Your task to perform on an android device: star an email in the gmail app Image 0: 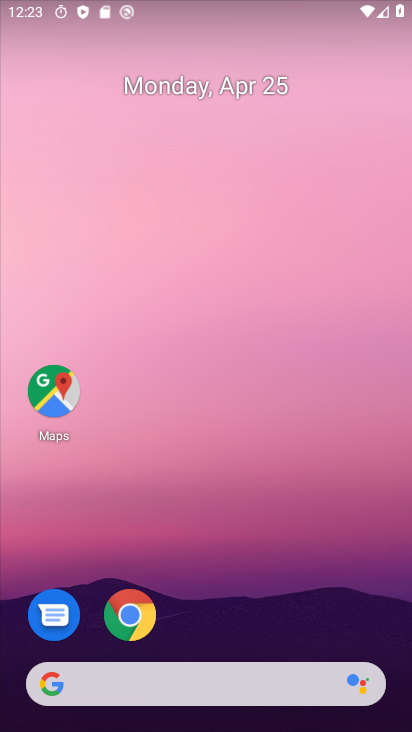
Step 0: drag from (199, 642) to (242, 20)
Your task to perform on an android device: star an email in the gmail app Image 1: 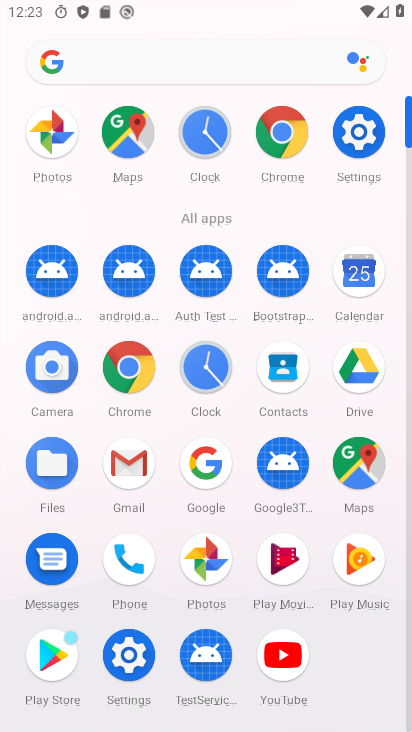
Step 1: click (132, 470)
Your task to perform on an android device: star an email in the gmail app Image 2: 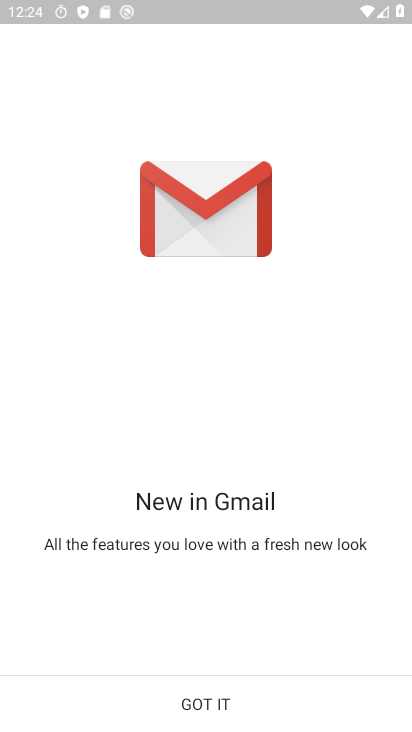
Step 2: click (181, 695)
Your task to perform on an android device: star an email in the gmail app Image 3: 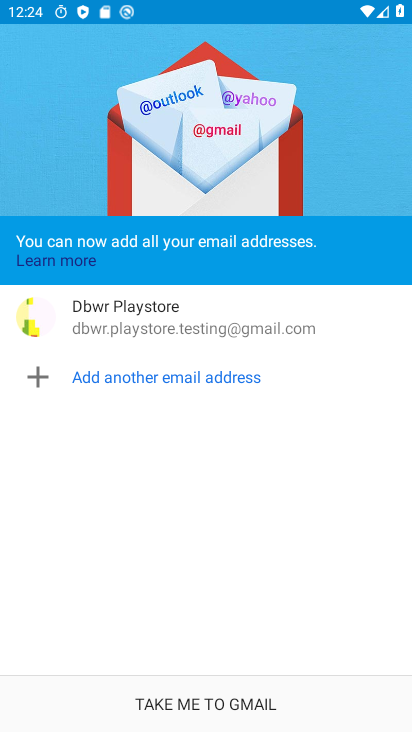
Step 3: click (210, 715)
Your task to perform on an android device: star an email in the gmail app Image 4: 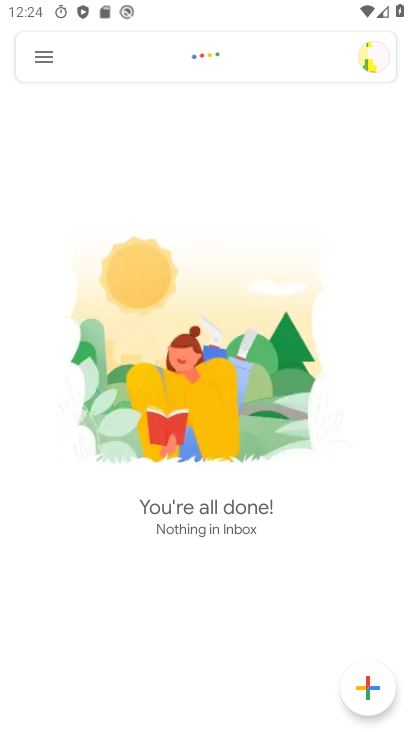
Step 4: task complete